Your task to perform on an android device: find photos in the google photos app Image 0: 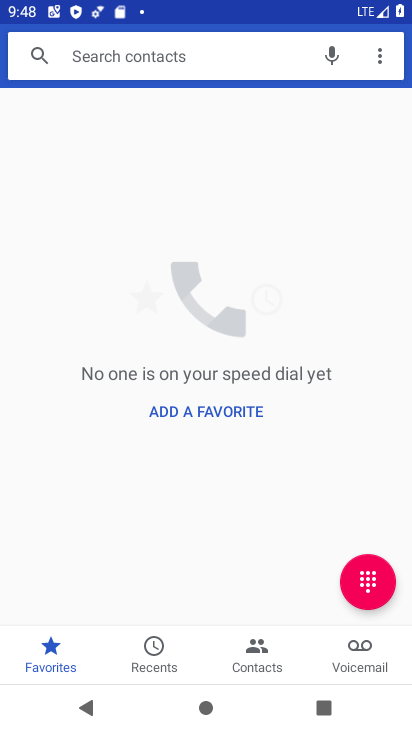
Step 0: press back button
Your task to perform on an android device: find photos in the google photos app Image 1: 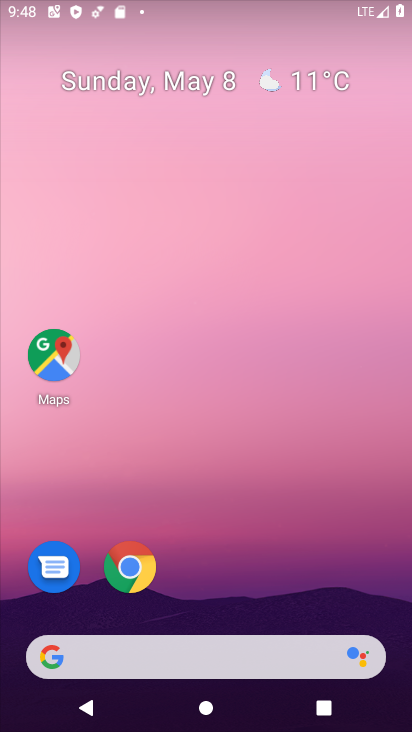
Step 1: drag from (168, 612) to (301, 37)
Your task to perform on an android device: find photos in the google photos app Image 2: 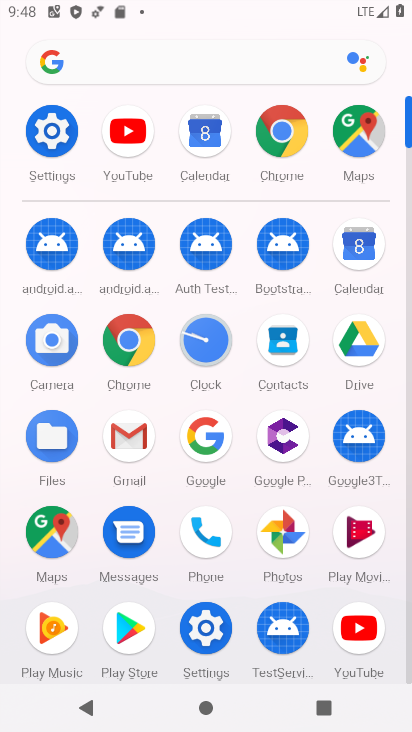
Step 2: click (284, 536)
Your task to perform on an android device: find photos in the google photos app Image 3: 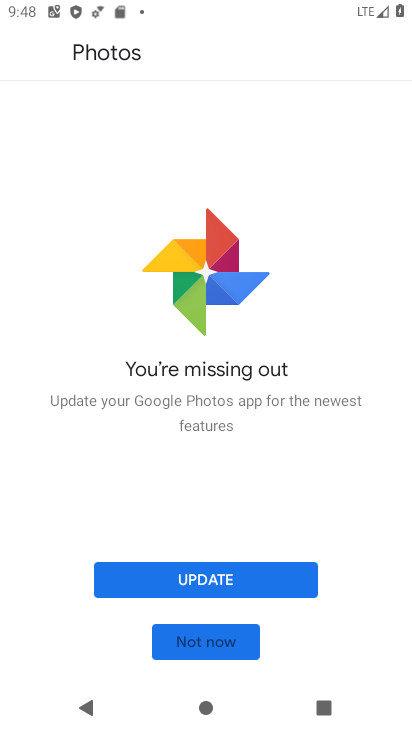
Step 3: click (195, 641)
Your task to perform on an android device: find photos in the google photos app Image 4: 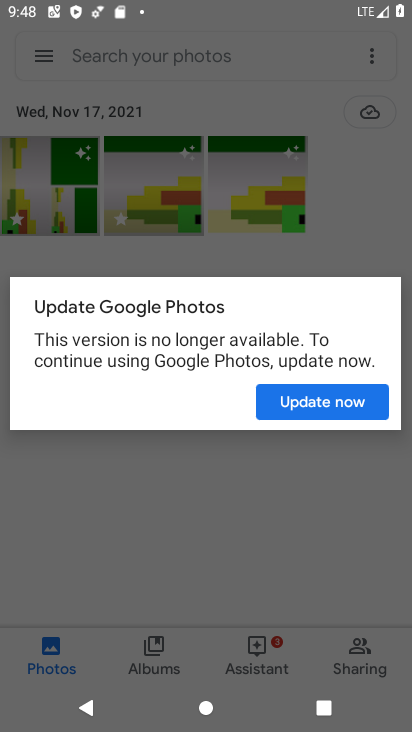
Step 4: click (52, 648)
Your task to perform on an android device: find photos in the google photos app Image 5: 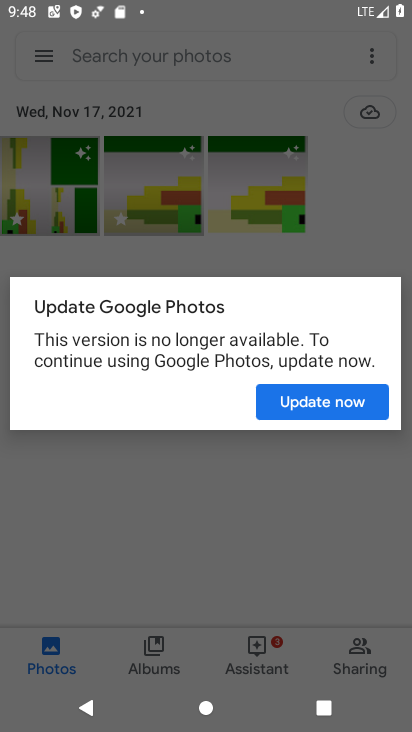
Step 5: click (312, 394)
Your task to perform on an android device: find photos in the google photos app Image 6: 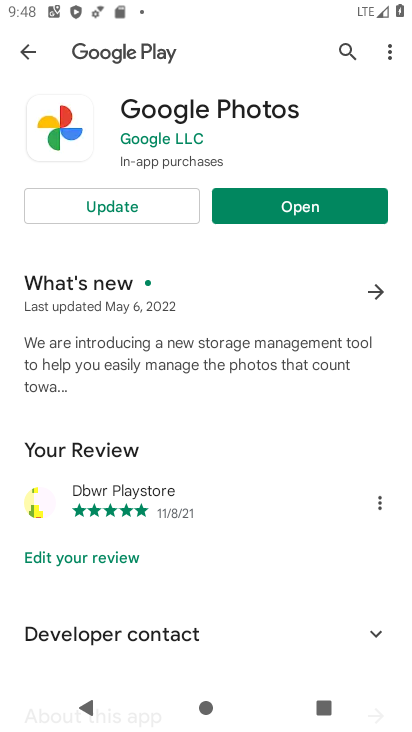
Step 6: click (274, 210)
Your task to perform on an android device: find photos in the google photos app Image 7: 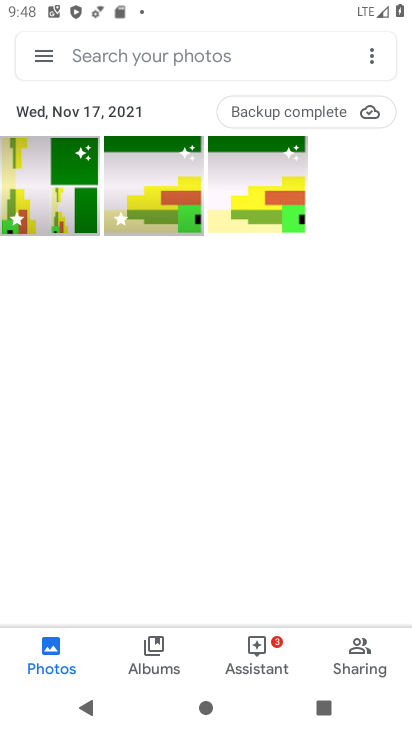
Step 7: click (53, 650)
Your task to perform on an android device: find photos in the google photos app Image 8: 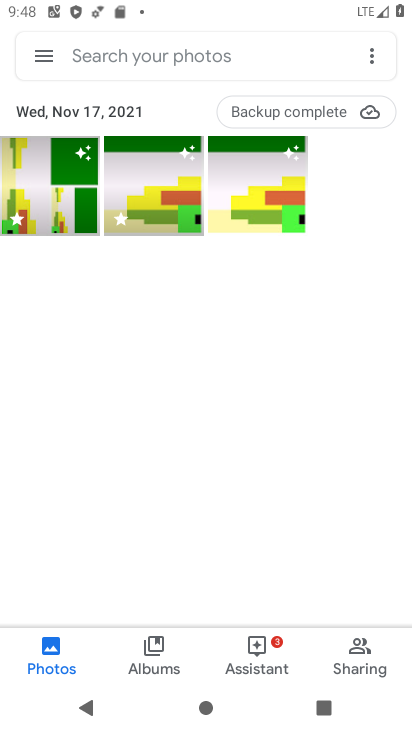
Step 8: task complete